Your task to perform on an android device: create a new album in the google photos Image 0: 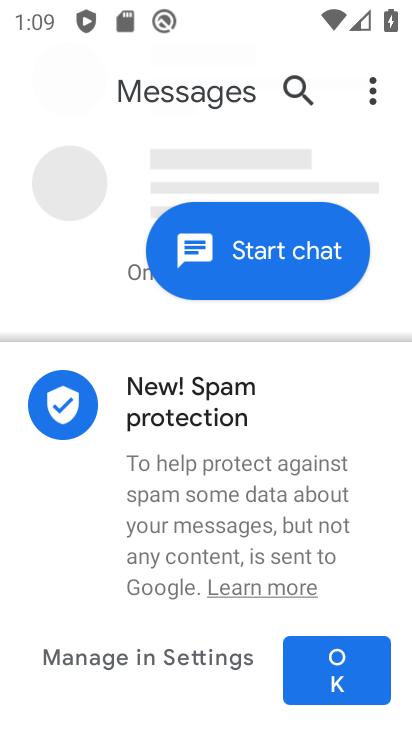
Step 0: press back button
Your task to perform on an android device: create a new album in the google photos Image 1: 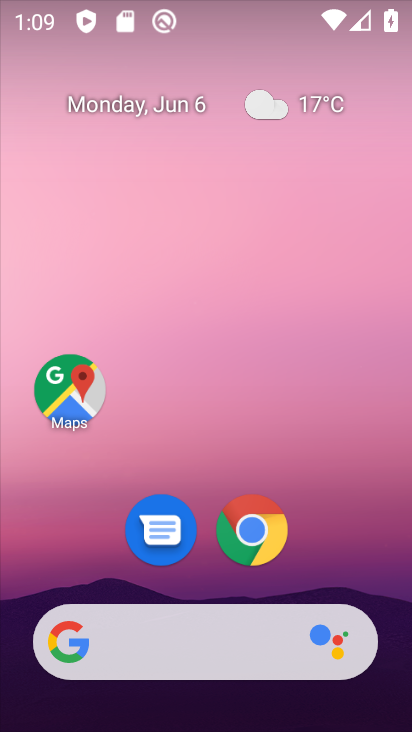
Step 1: drag from (337, 533) to (224, 42)
Your task to perform on an android device: create a new album in the google photos Image 2: 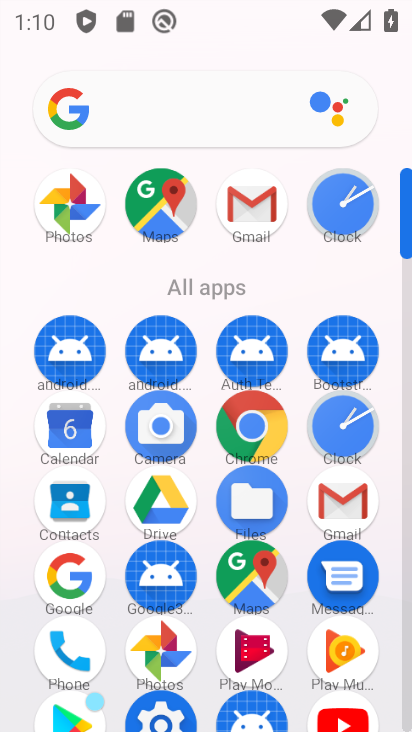
Step 2: click (70, 205)
Your task to perform on an android device: create a new album in the google photos Image 3: 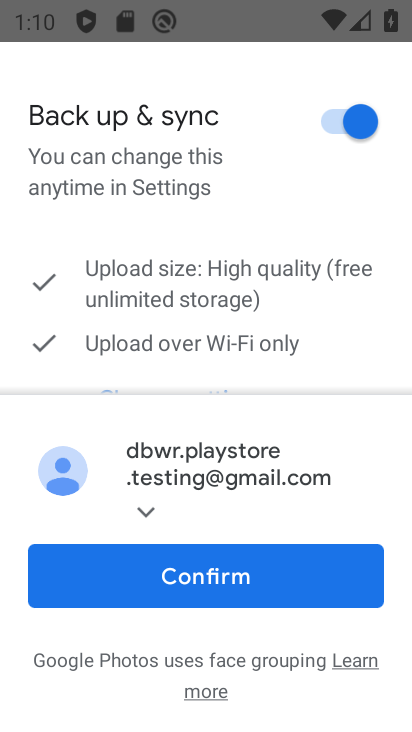
Step 3: click (225, 572)
Your task to perform on an android device: create a new album in the google photos Image 4: 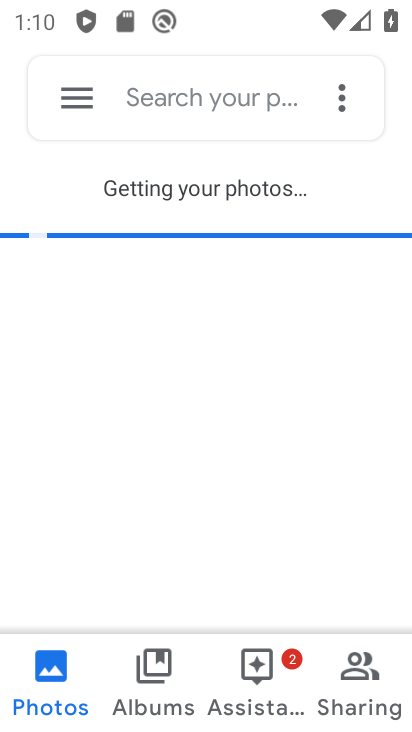
Step 4: click (344, 97)
Your task to perform on an android device: create a new album in the google photos Image 5: 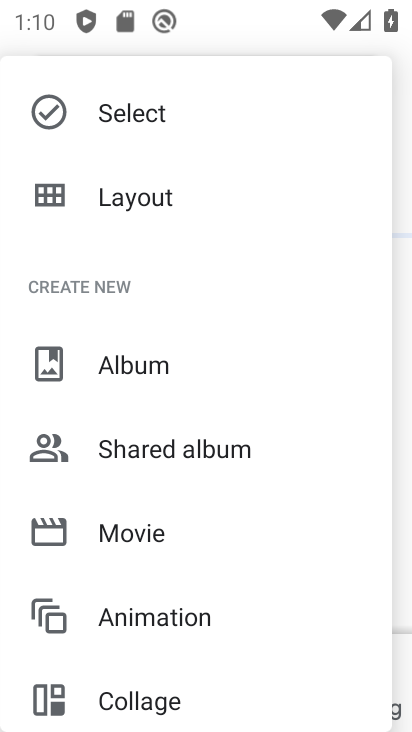
Step 5: click (165, 361)
Your task to perform on an android device: create a new album in the google photos Image 6: 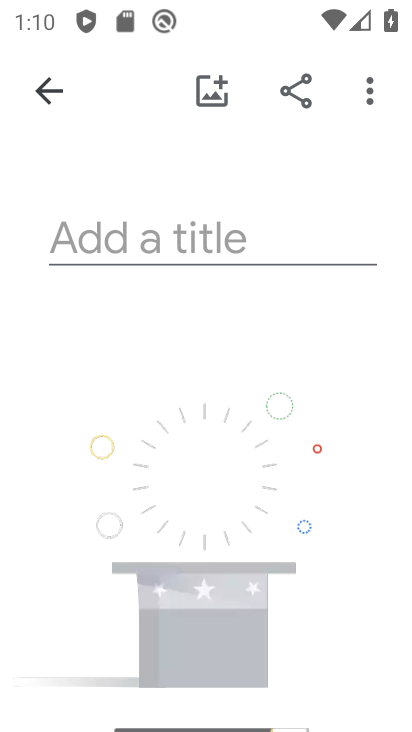
Step 6: click (238, 241)
Your task to perform on an android device: create a new album in the google photos Image 7: 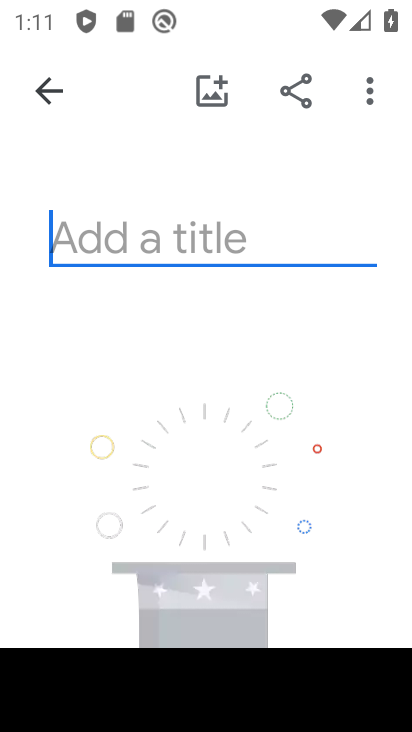
Step 7: type "Rose"
Your task to perform on an android device: create a new album in the google photos Image 8: 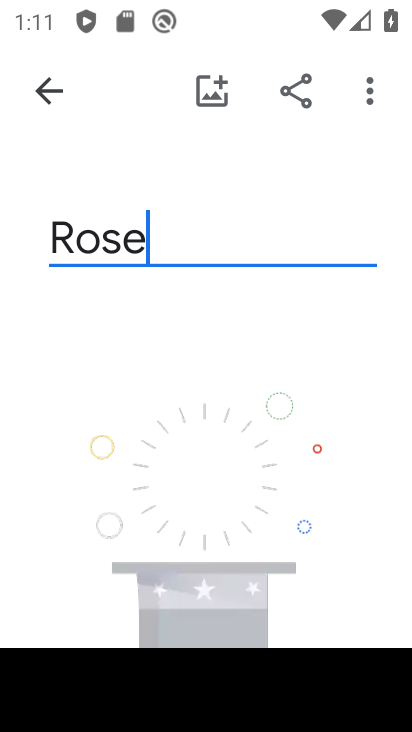
Step 8: drag from (225, 416) to (312, 272)
Your task to perform on an android device: create a new album in the google photos Image 9: 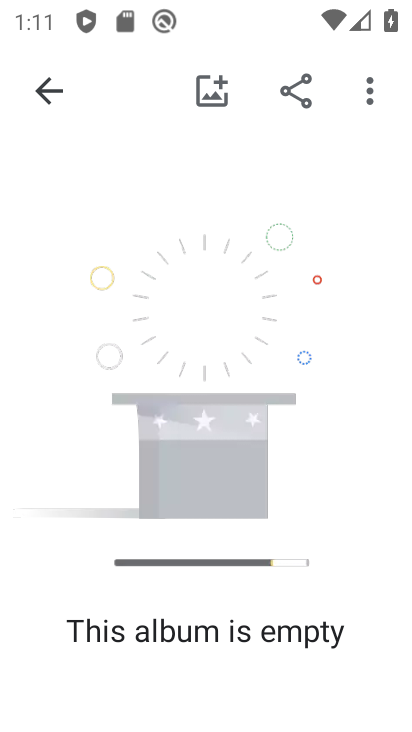
Step 9: drag from (316, 561) to (357, 412)
Your task to perform on an android device: create a new album in the google photos Image 10: 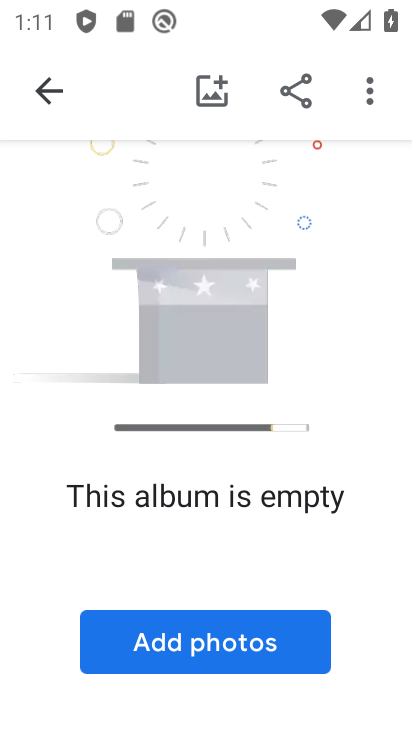
Step 10: click (240, 627)
Your task to perform on an android device: create a new album in the google photos Image 11: 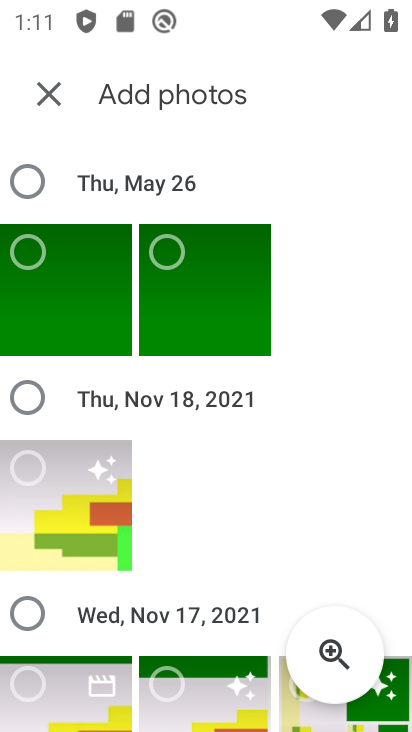
Step 11: click (31, 188)
Your task to perform on an android device: create a new album in the google photos Image 12: 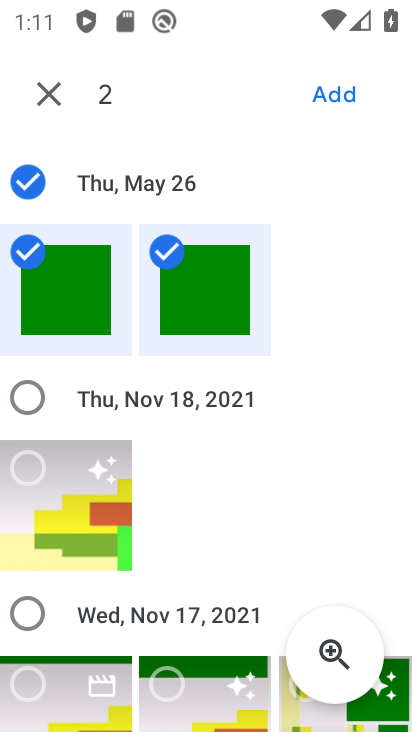
Step 12: click (333, 97)
Your task to perform on an android device: create a new album in the google photos Image 13: 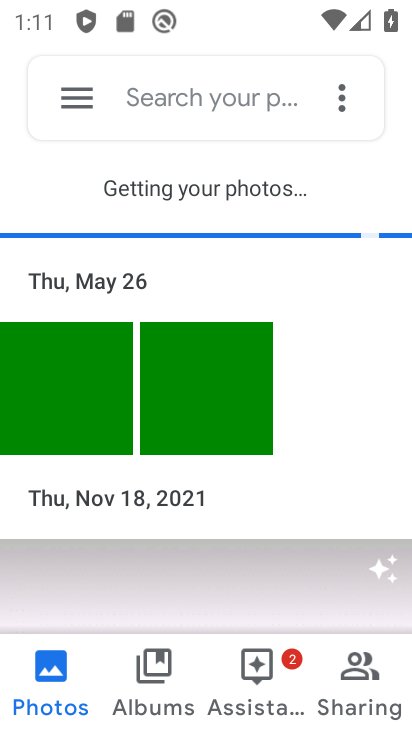
Step 13: task complete